Your task to perform on an android device: When is my next meeting? Image 0: 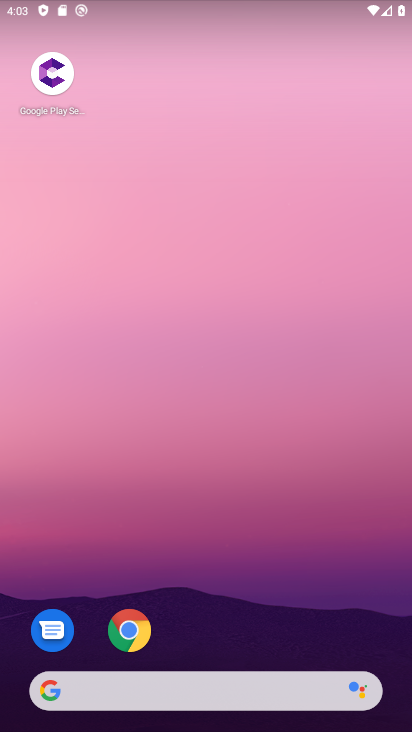
Step 0: drag from (308, 629) to (324, 41)
Your task to perform on an android device: When is my next meeting? Image 1: 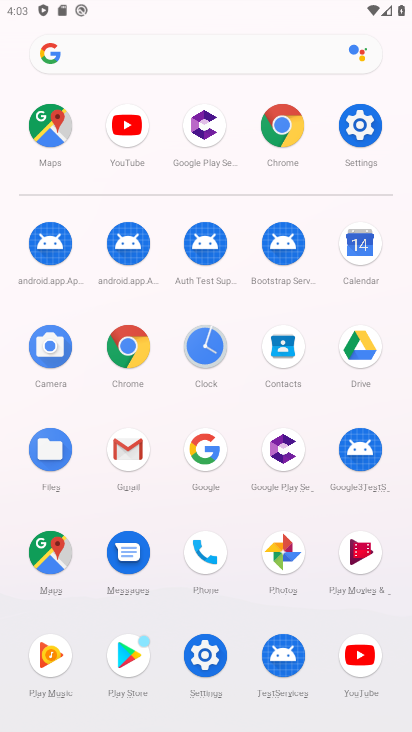
Step 1: click (364, 258)
Your task to perform on an android device: When is my next meeting? Image 2: 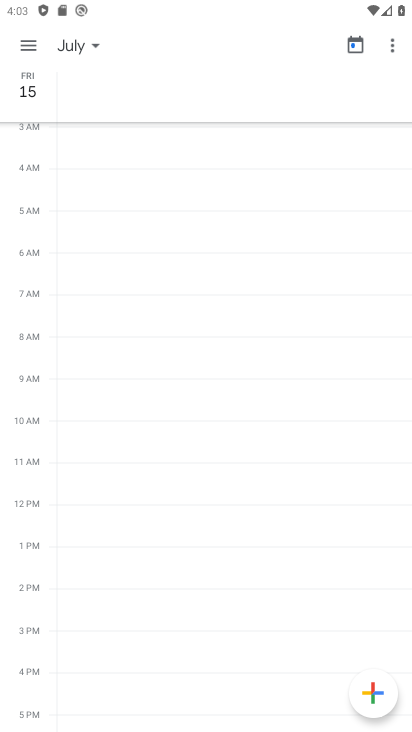
Step 2: click (26, 48)
Your task to perform on an android device: When is my next meeting? Image 3: 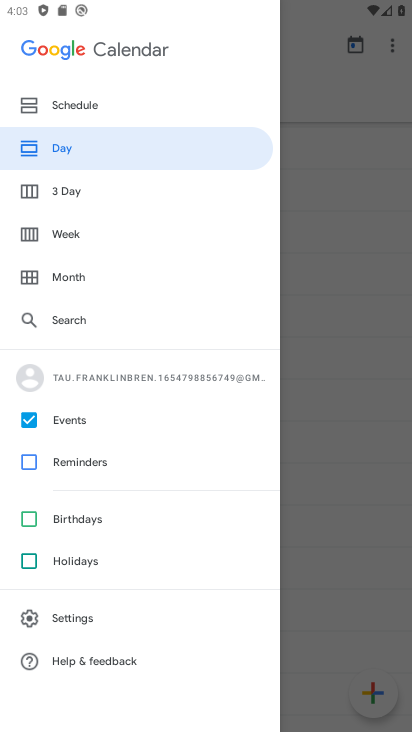
Step 3: click (69, 111)
Your task to perform on an android device: When is my next meeting? Image 4: 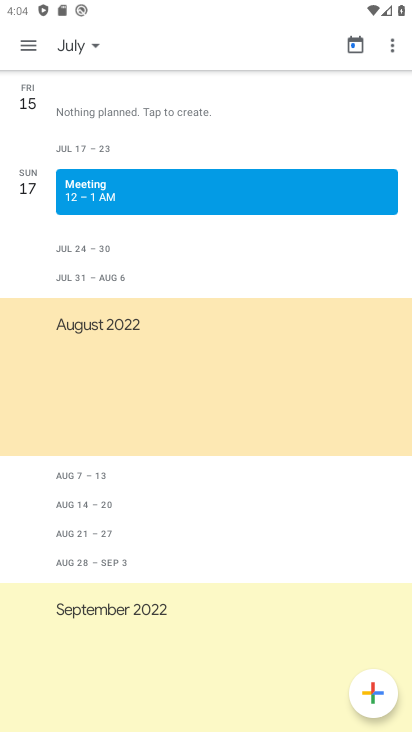
Step 4: task complete